Your task to perform on an android device: Open calendar and show me the second week of next month Image 0: 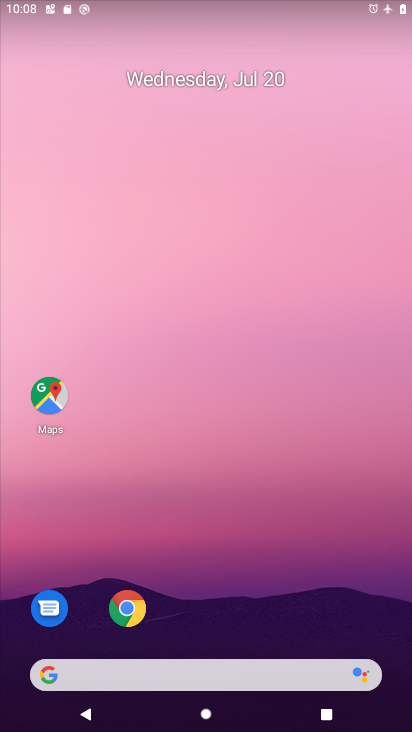
Step 0: drag from (203, 562) to (204, 201)
Your task to perform on an android device: Open calendar and show me the second week of next month Image 1: 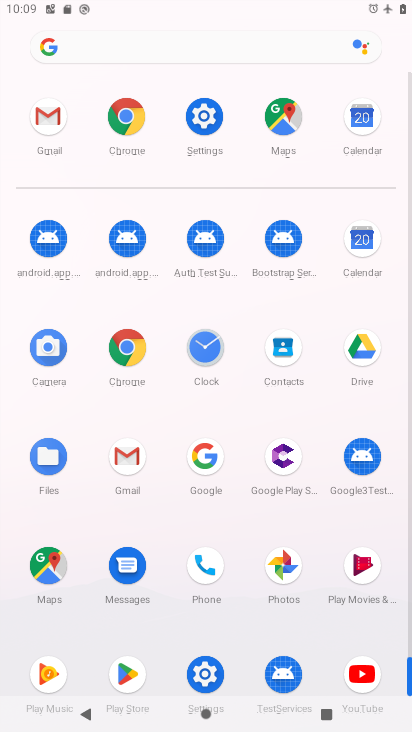
Step 1: click (358, 229)
Your task to perform on an android device: Open calendar and show me the second week of next month Image 2: 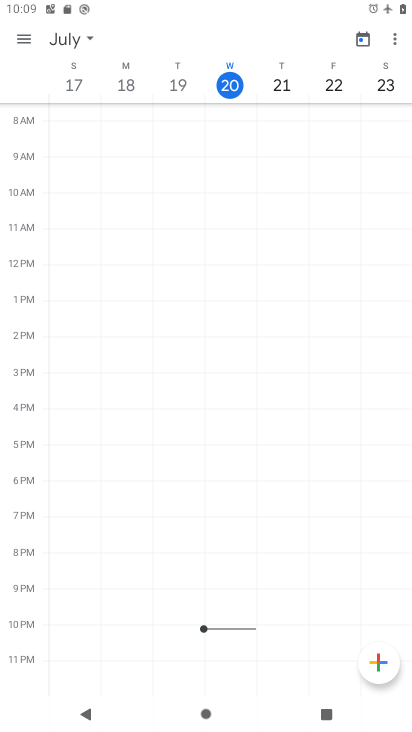
Step 2: task complete